Your task to perform on an android device: Go to Maps Image 0: 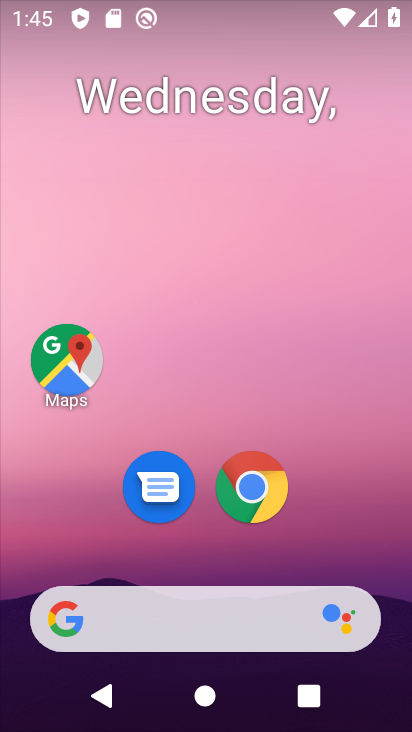
Step 0: click (53, 361)
Your task to perform on an android device: Go to Maps Image 1: 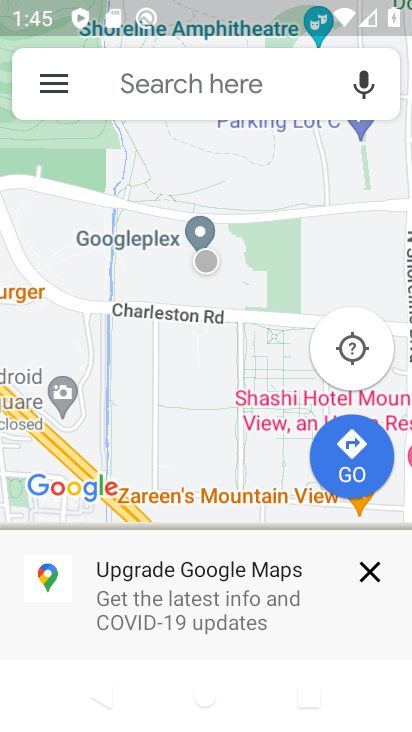
Step 1: task complete